Your task to perform on an android device: make emails show in primary in the gmail app Image 0: 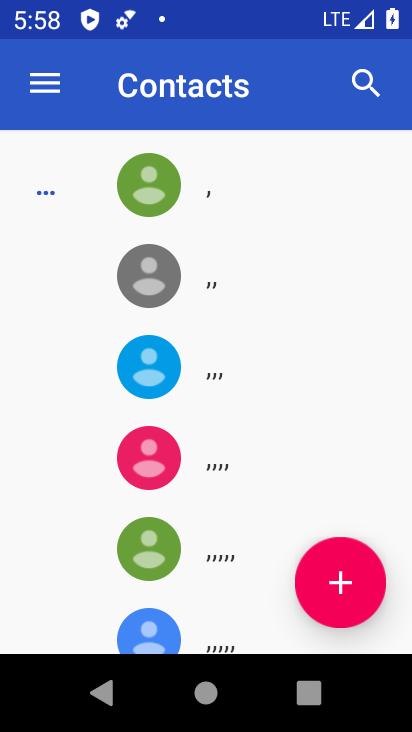
Step 0: press home button
Your task to perform on an android device: make emails show in primary in the gmail app Image 1: 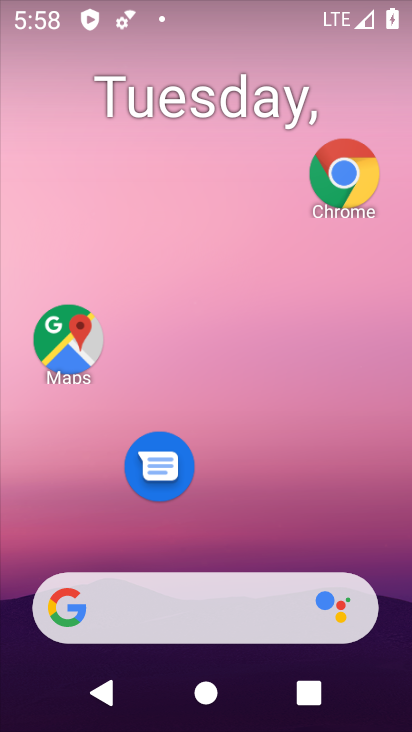
Step 1: drag from (269, 488) to (189, 100)
Your task to perform on an android device: make emails show in primary in the gmail app Image 2: 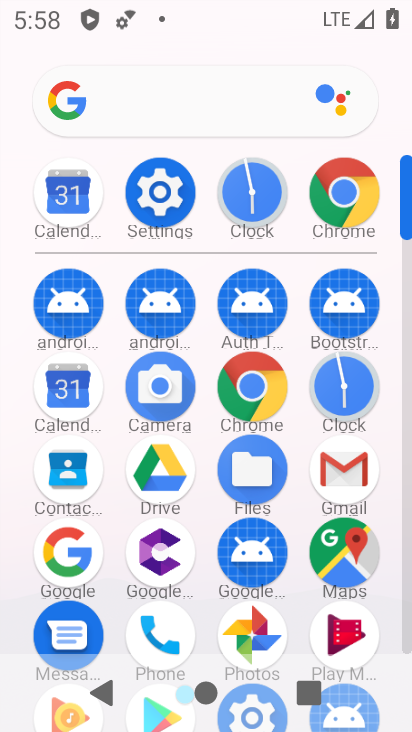
Step 2: click (328, 466)
Your task to perform on an android device: make emails show in primary in the gmail app Image 3: 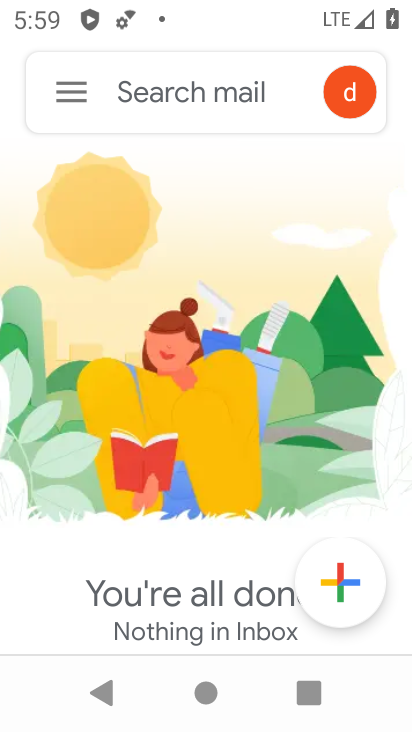
Step 3: click (78, 87)
Your task to perform on an android device: make emails show in primary in the gmail app Image 4: 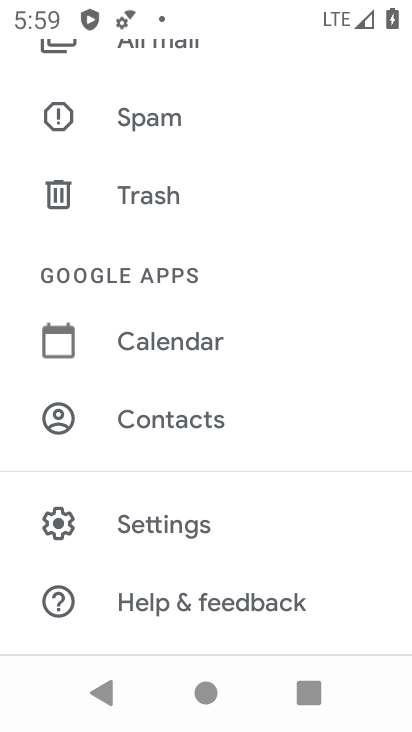
Step 4: task complete